Your task to perform on an android device: turn vacation reply on in the gmail app Image 0: 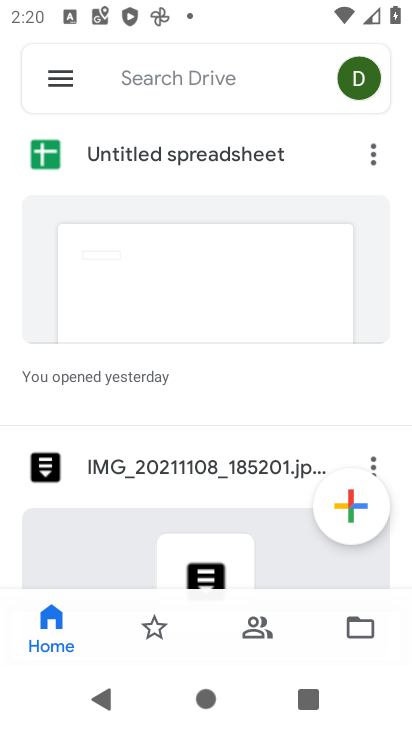
Step 0: press home button
Your task to perform on an android device: turn vacation reply on in the gmail app Image 1: 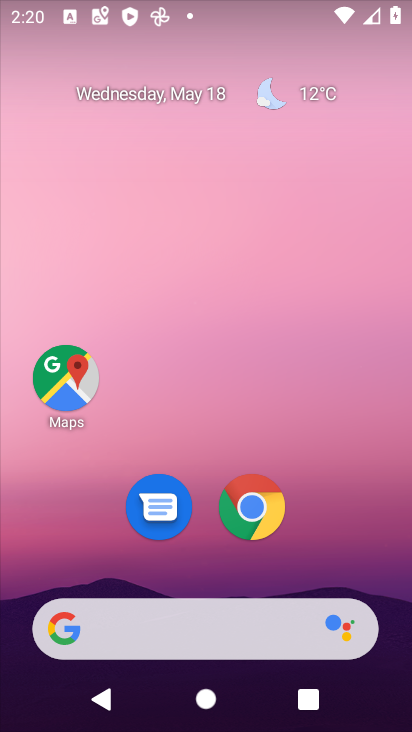
Step 1: drag from (389, 599) to (360, 54)
Your task to perform on an android device: turn vacation reply on in the gmail app Image 2: 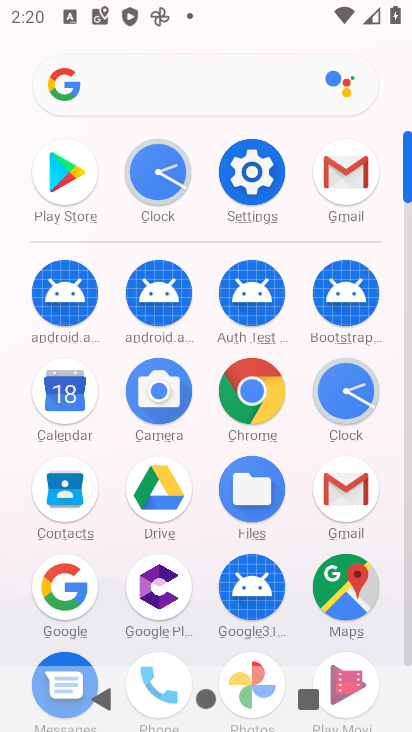
Step 2: click (406, 648)
Your task to perform on an android device: turn vacation reply on in the gmail app Image 3: 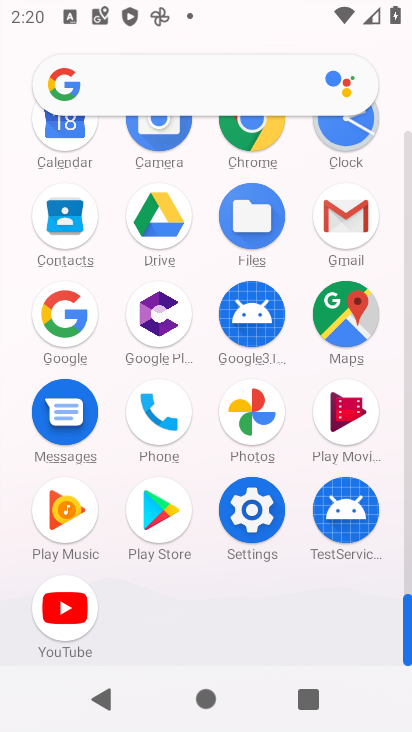
Step 3: click (343, 216)
Your task to perform on an android device: turn vacation reply on in the gmail app Image 4: 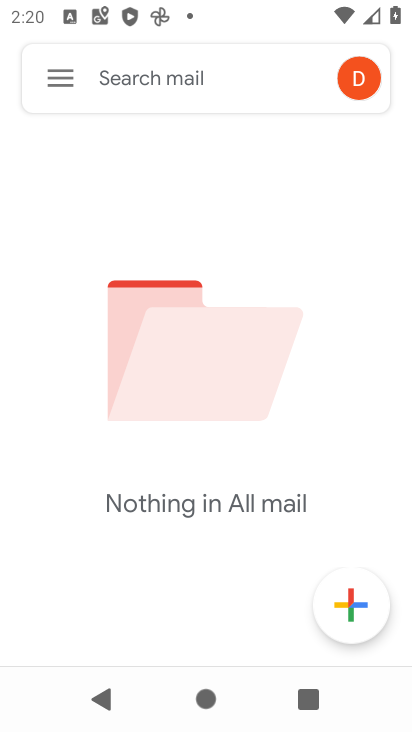
Step 4: click (65, 81)
Your task to perform on an android device: turn vacation reply on in the gmail app Image 5: 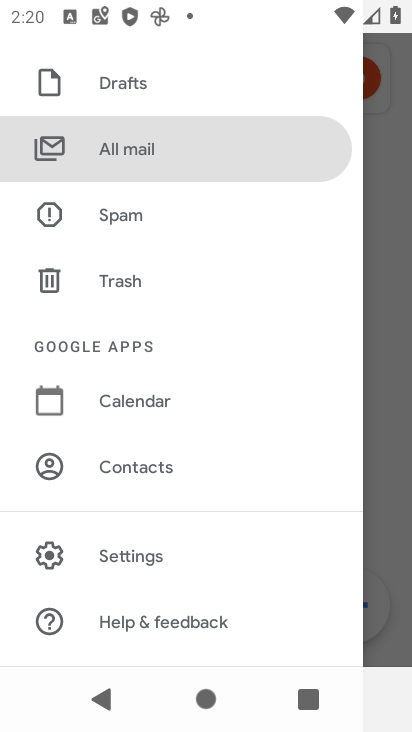
Step 5: click (147, 555)
Your task to perform on an android device: turn vacation reply on in the gmail app Image 6: 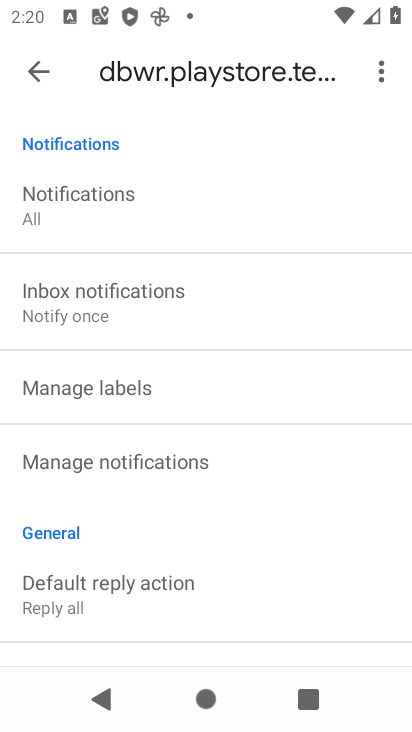
Step 6: drag from (287, 160) to (266, 64)
Your task to perform on an android device: turn vacation reply on in the gmail app Image 7: 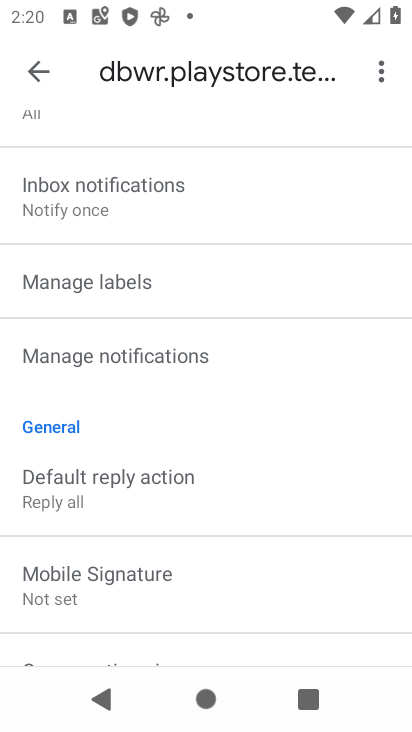
Step 7: drag from (273, 565) to (287, 139)
Your task to perform on an android device: turn vacation reply on in the gmail app Image 8: 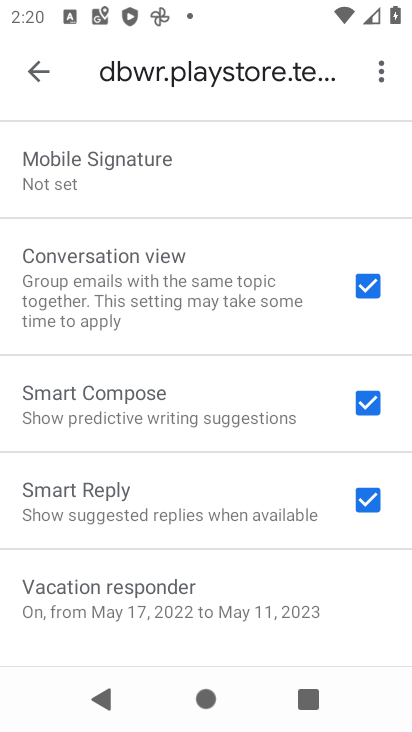
Step 8: drag from (250, 577) to (200, 290)
Your task to perform on an android device: turn vacation reply on in the gmail app Image 9: 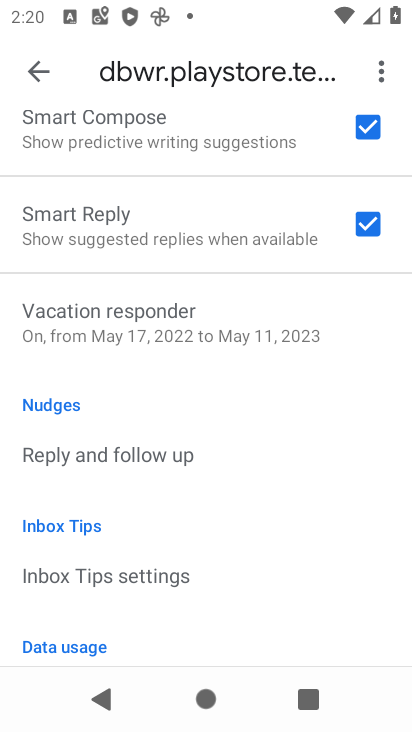
Step 9: click (120, 330)
Your task to perform on an android device: turn vacation reply on in the gmail app Image 10: 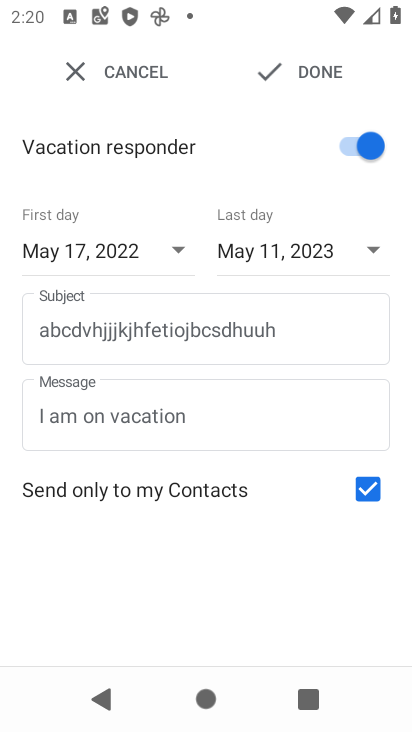
Step 10: task complete